Your task to perform on an android device: Add razer blackwidow to the cart on amazon.com Image 0: 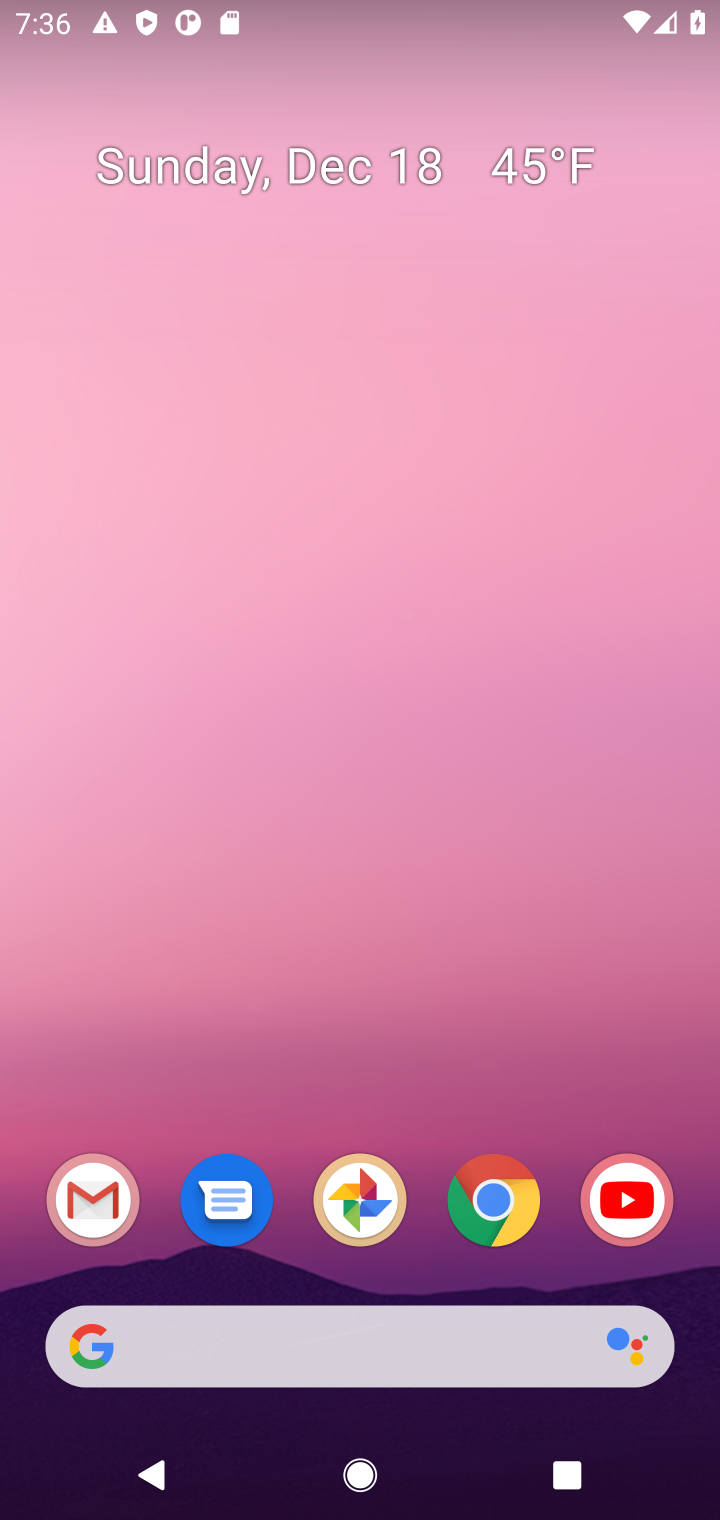
Step 0: click (498, 1214)
Your task to perform on an android device: Add razer blackwidow to the cart on amazon.com Image 1: 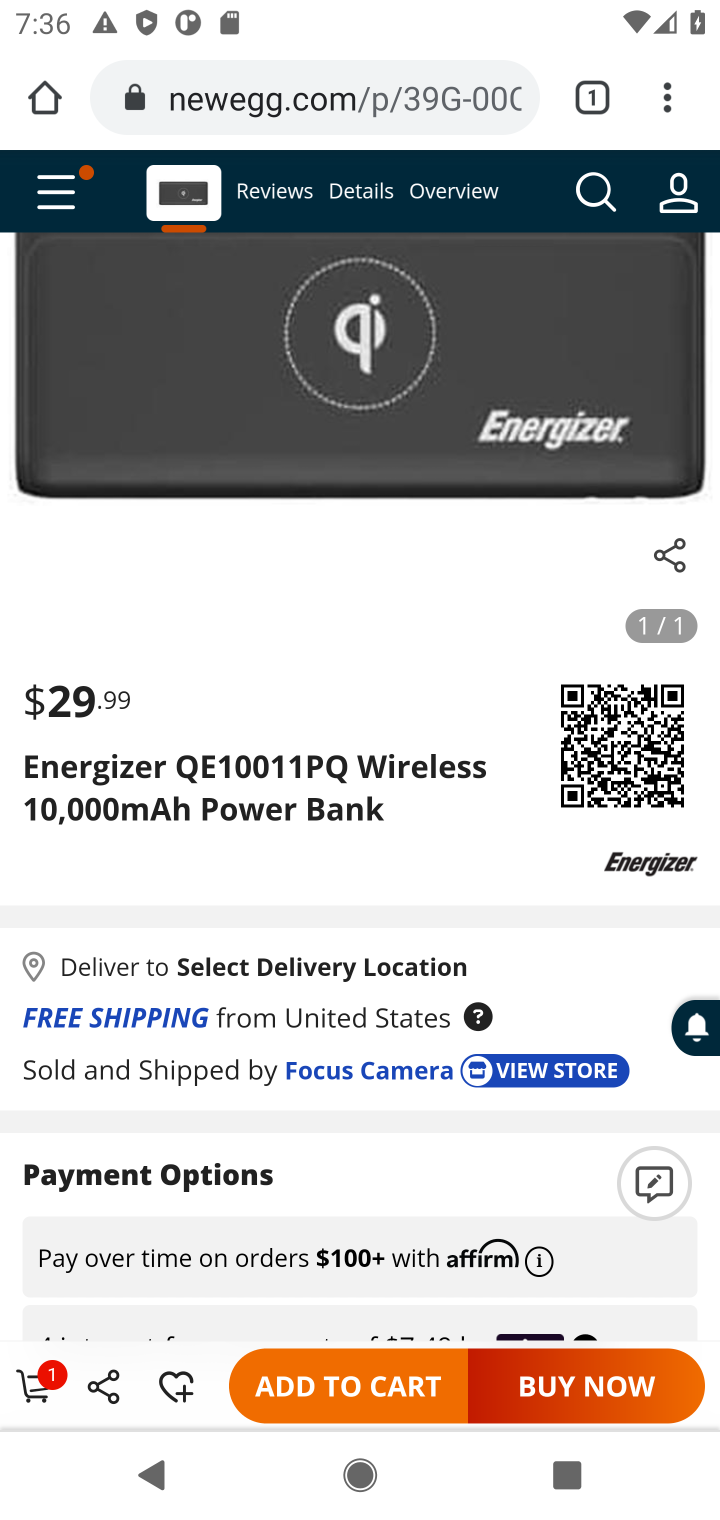
Step 1: click (216, 104)
Your task to perform on an android device: Add razer blackwidow to the cart on amazon.com Image 2: 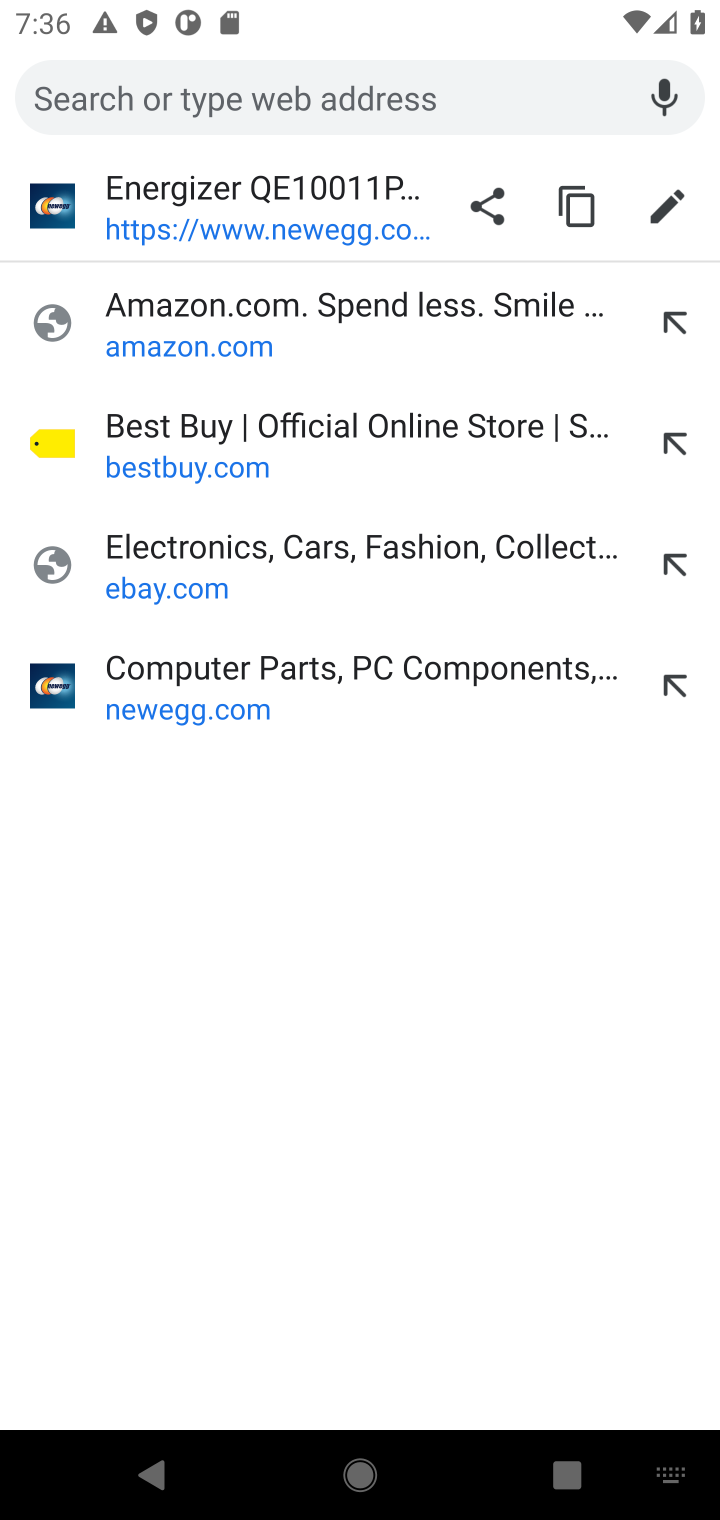
Step 2: click (168, 326)
Your task to perform on an android device: Add razer blackwidow to the cart on amazon.com Image 3: 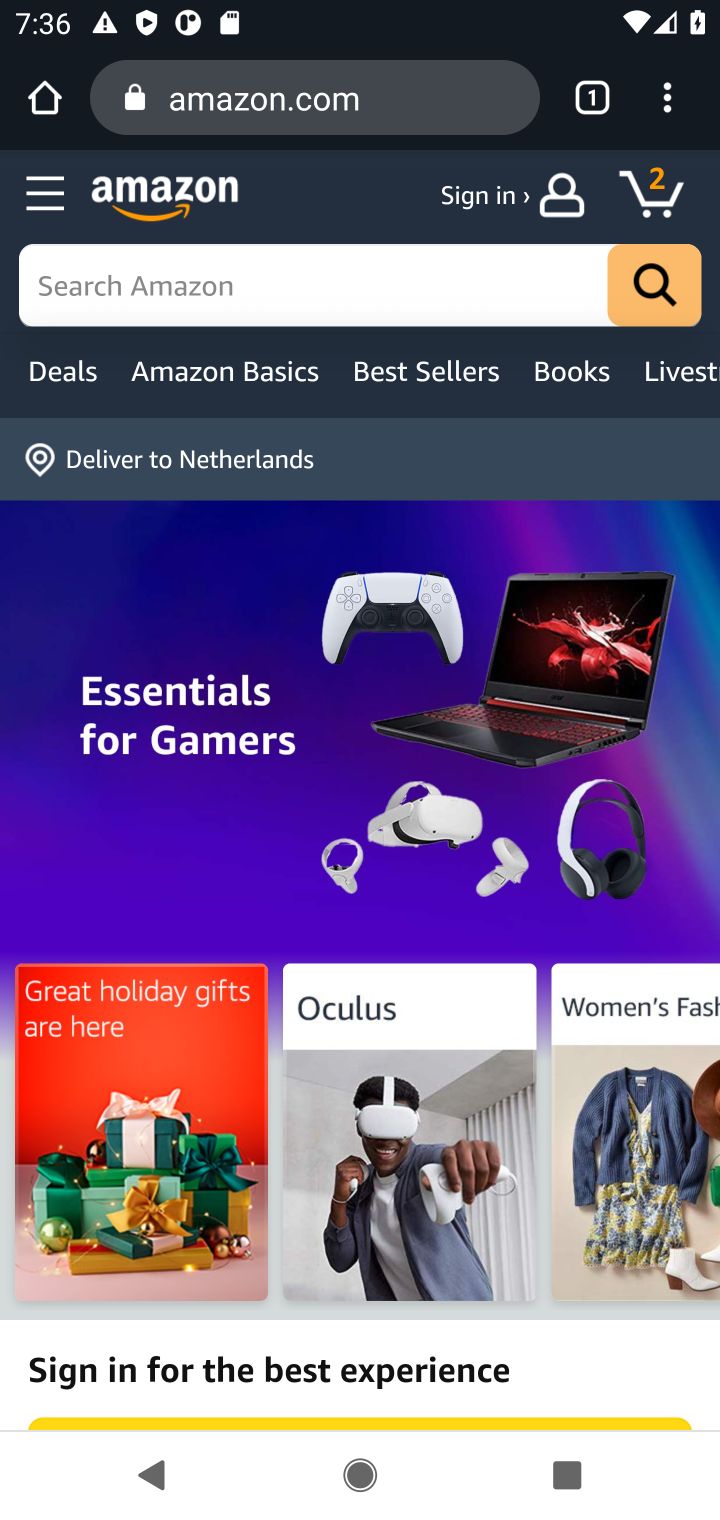
Step 3: click (133, 292)
Your task to perform on an android device: Add razer blackwidow to the cart on amazon.com Image 4: 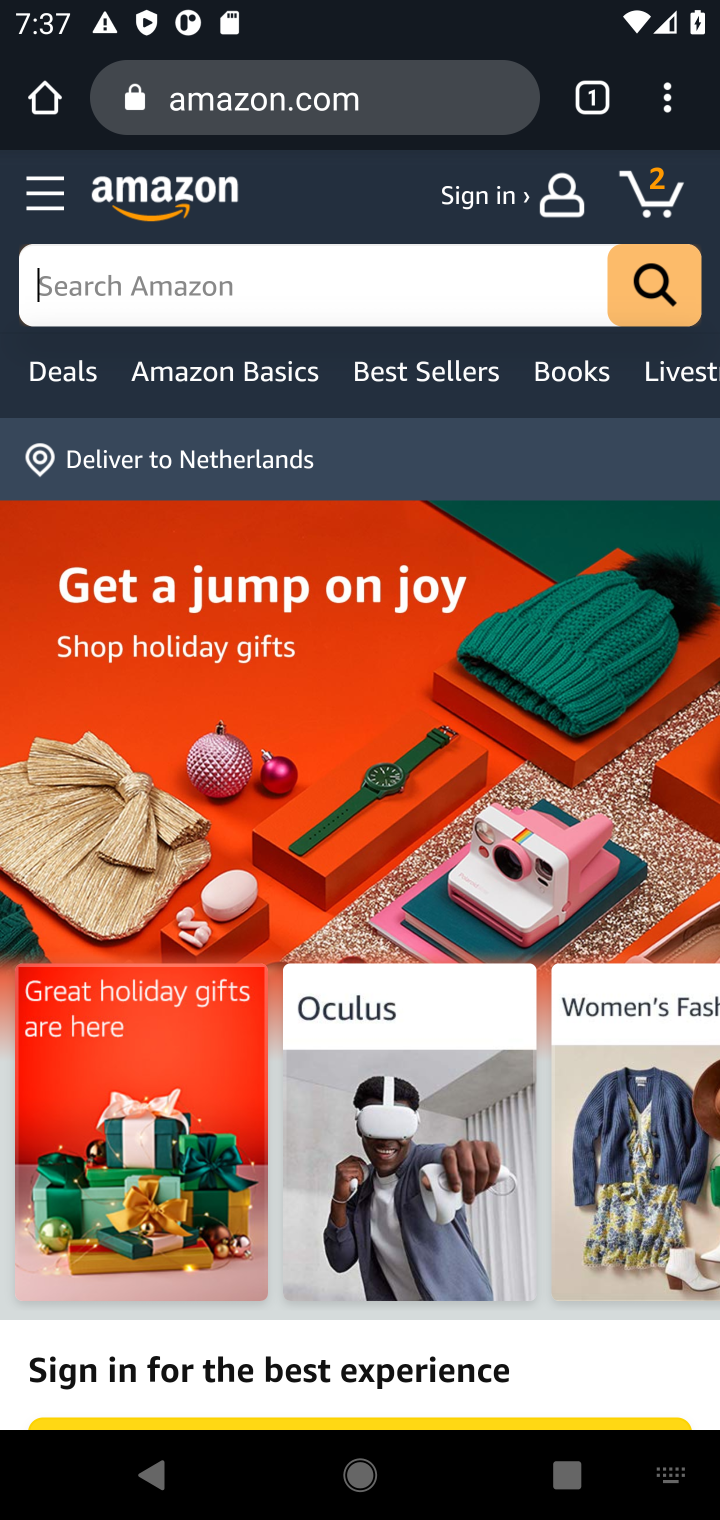
Step 4: type "razer blackwidow"
Your task to perform on an android device: Add razer blackwidow to the cart on amazon.com Image 5: 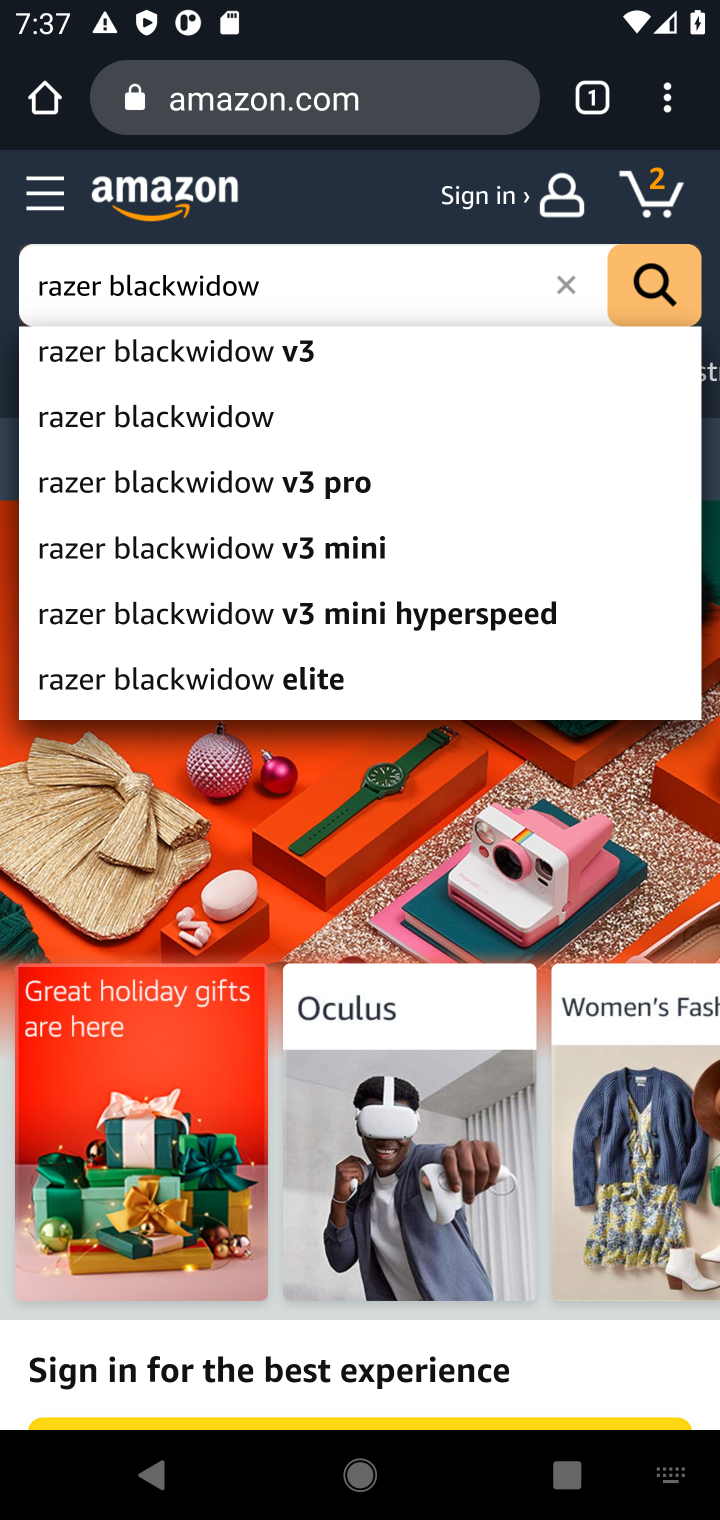
Step 5: click (267, 422)
Your task to perform on an android device: Add razer blackwidow to the cart on amazon.com Image 6: 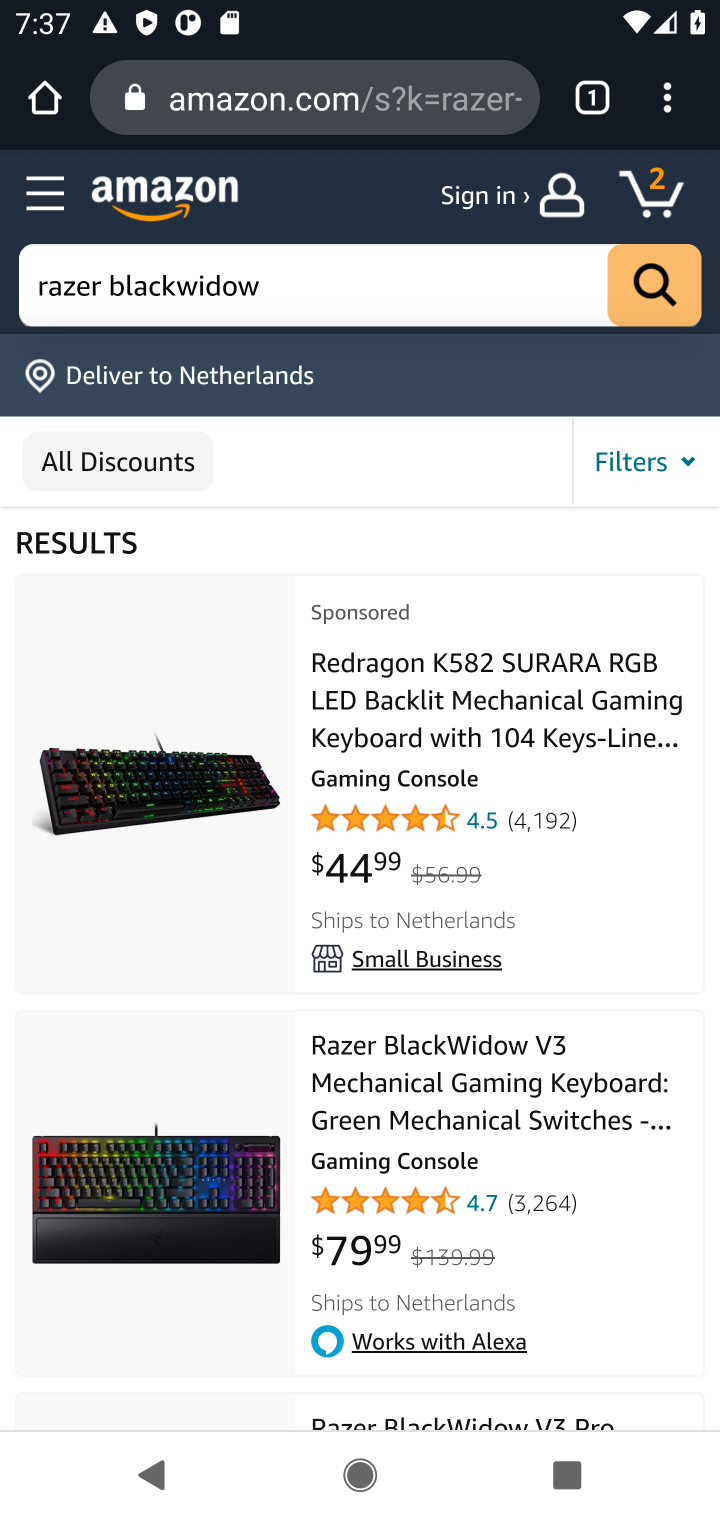
Step 6: drag from (364, 1134) to (364, 768)
Your task to perform on an android device: Add razer blackwidow to the cart on amazon.com Image 7: 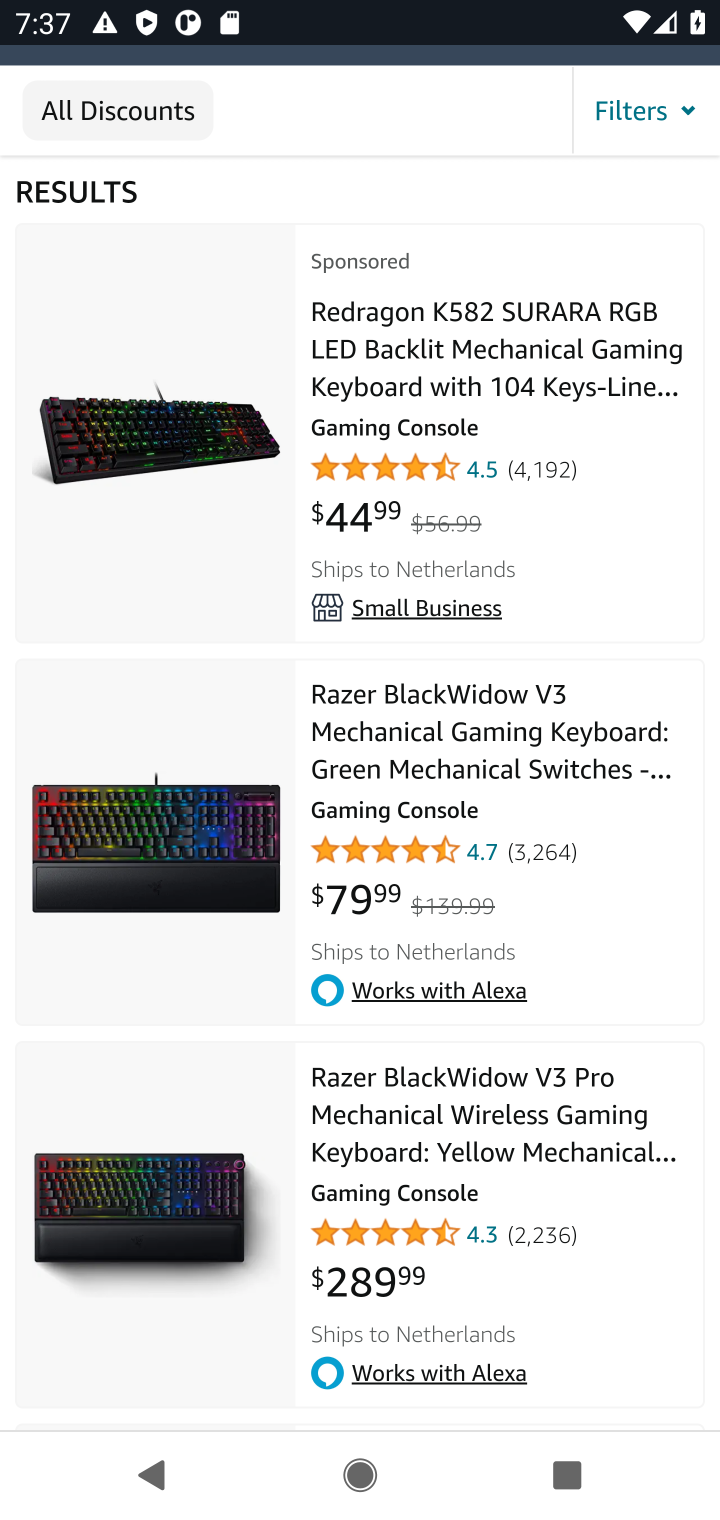
Step 7: click (385, 774)
Your task to perform on an android device: Add razer blackwidow to the cart on amazon.com Image 8: 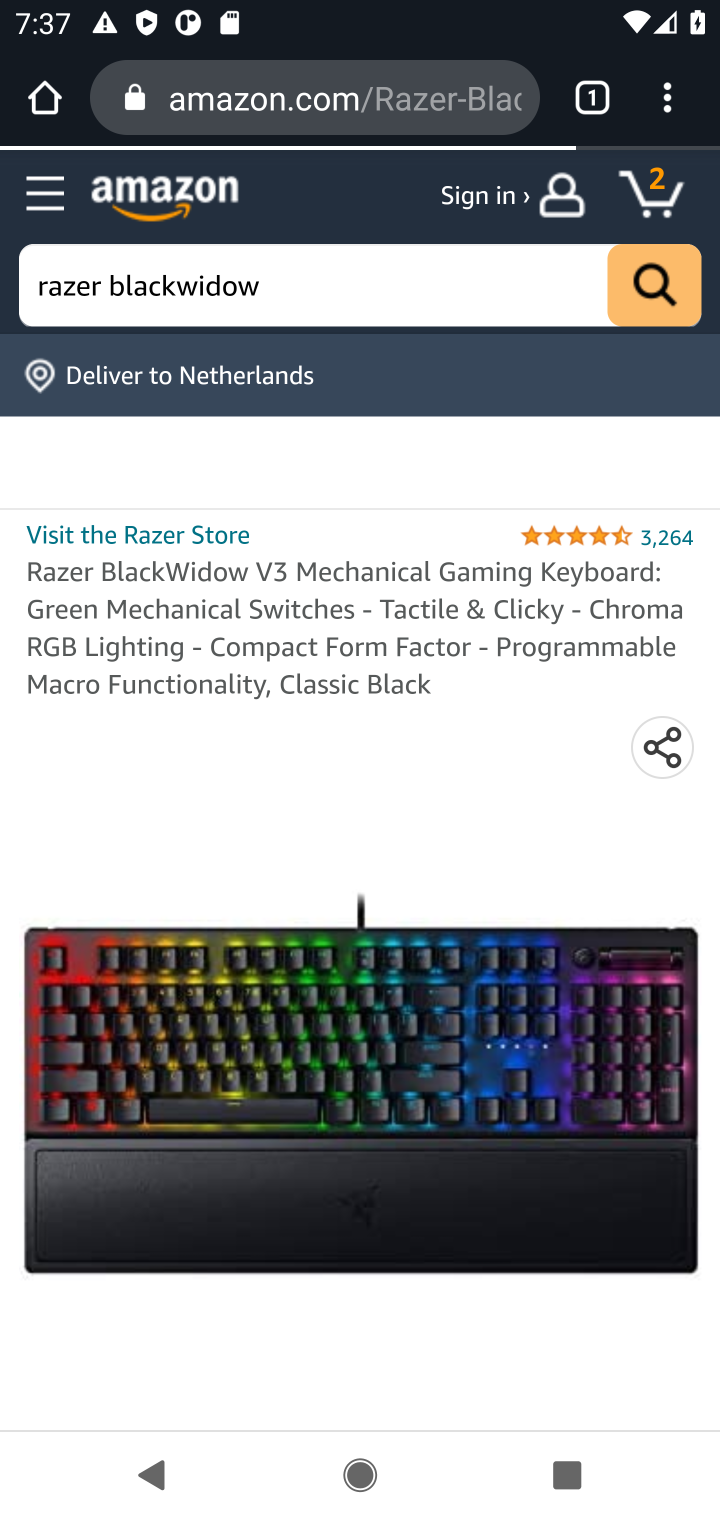
Step 8: drag from (342, 1099) to (330, 492)
Your task to perform on an android device: Add razer blackwidow to the cart on amazon.com Image 9: 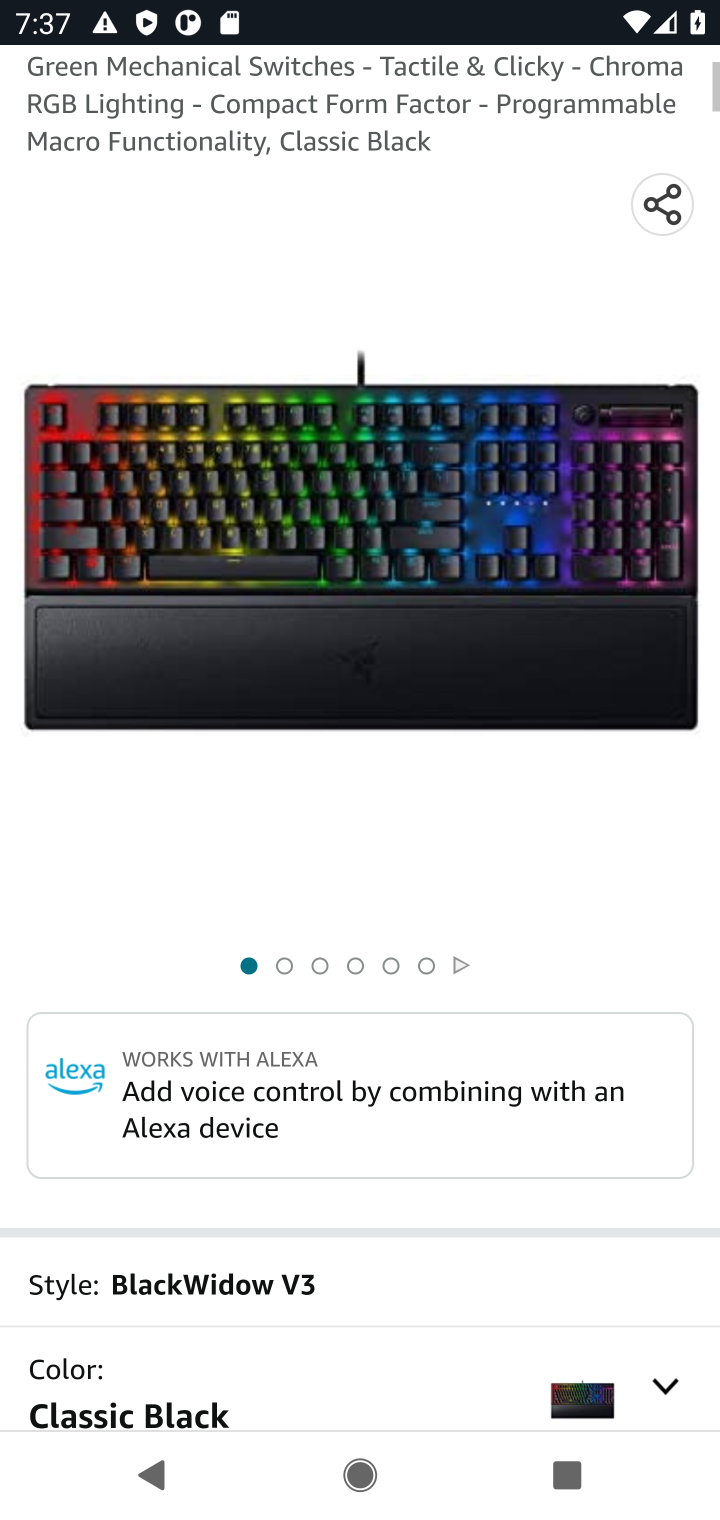
Step 9: drag from (355, 1051) to (359, 330)
Your task to perform on an android device: Add razer blackwidow to the cart on amazon.com Image 10: 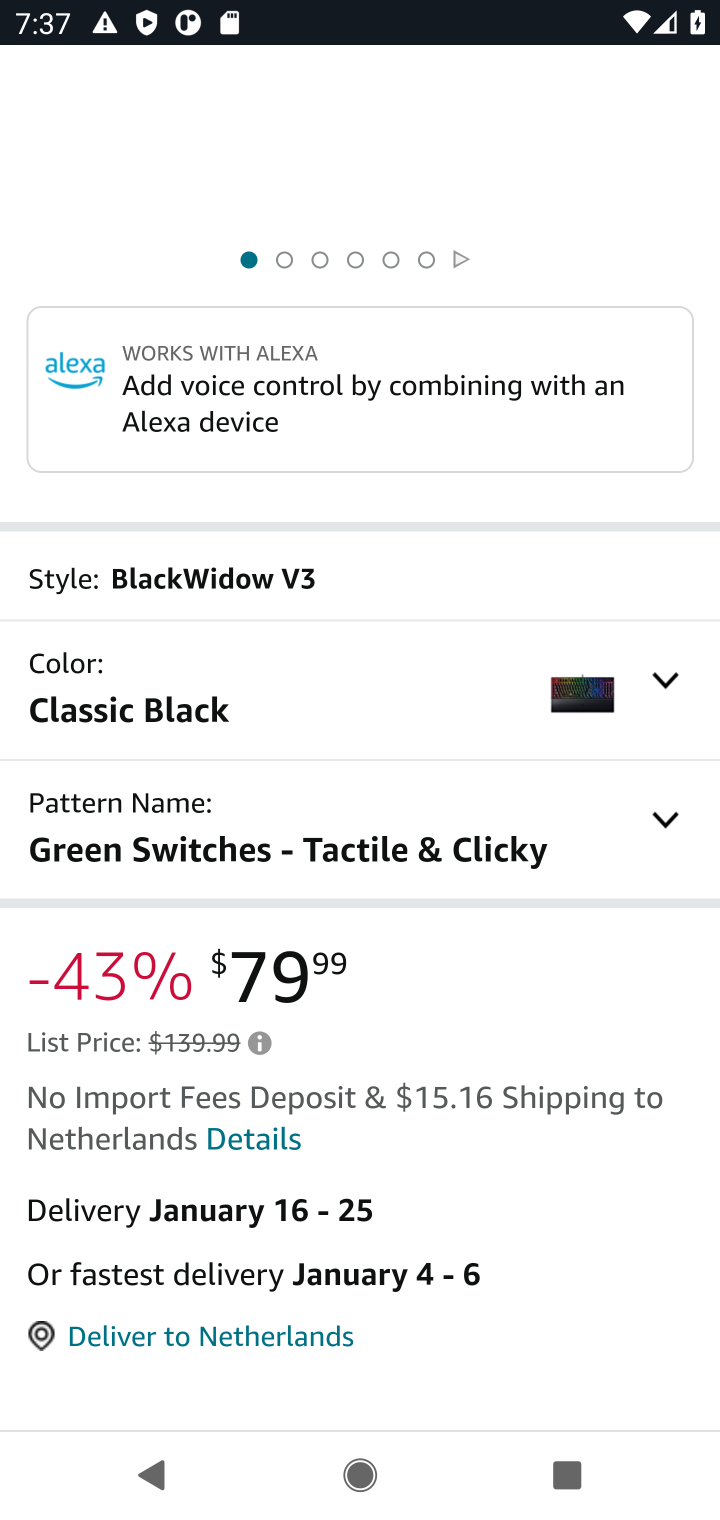
Step 10: drag from (342, 841) to (310, 248)
Your task to perform on an android device: Add razer blackwidow to the cart on amazon.com Image 11: 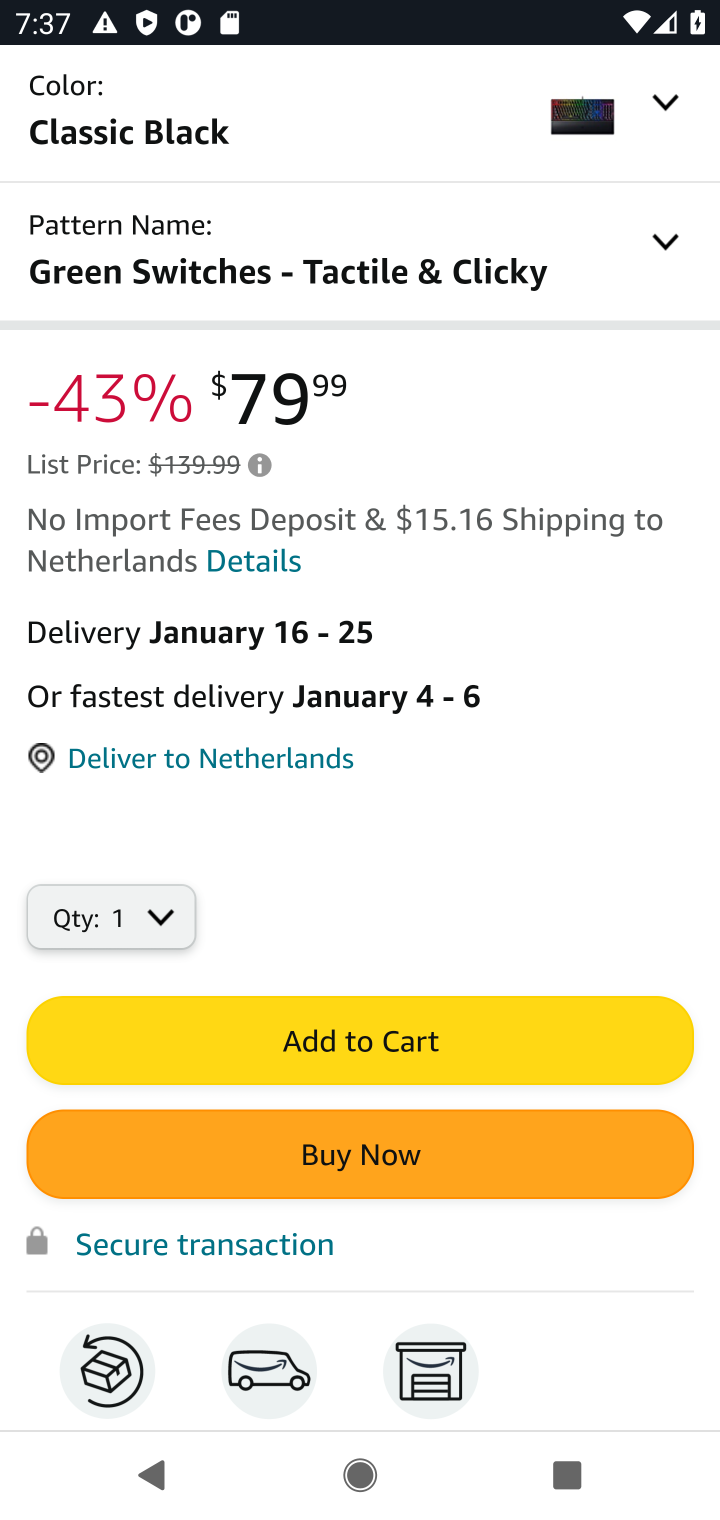
Step 11: click (314, 1028)
Your task to perform on an android device: Add razer blackwidow to the cart on amazon.com Image 12: 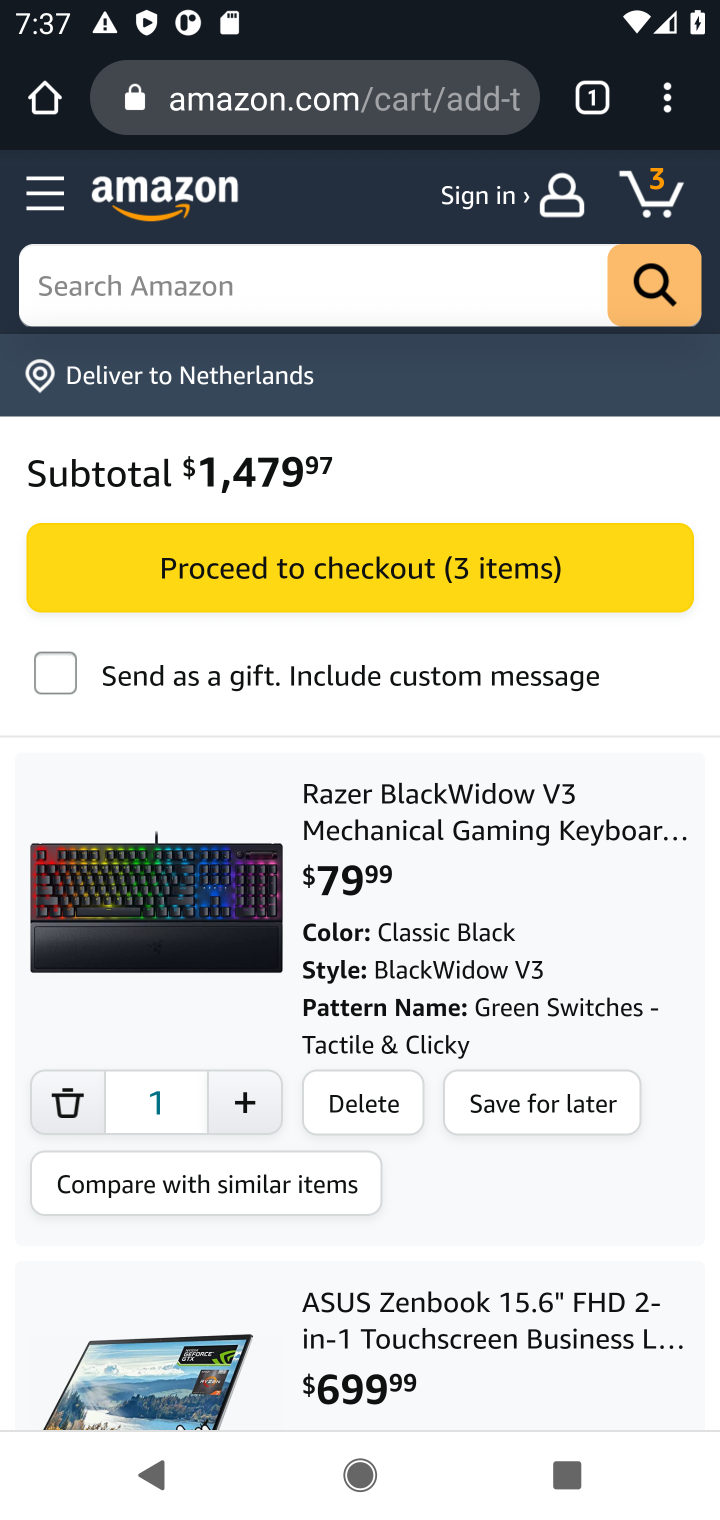
Step 12: task complete